Your task to perform on an android device: Open internet settings Image 0: 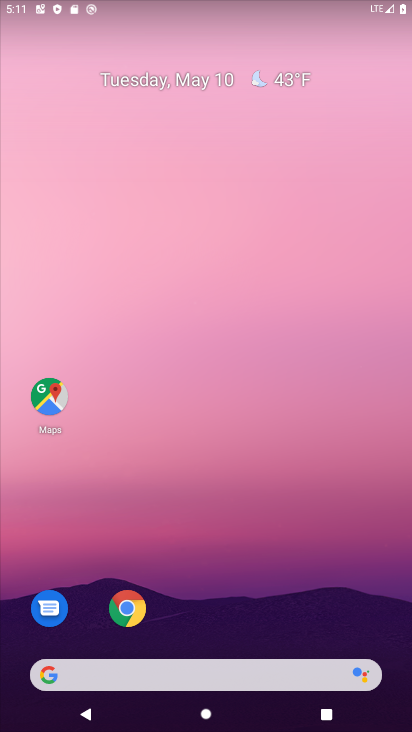
Step 0: drag from (214, 612) to (328, 3)
Your task to perform on an android device: Open internet settings Image 1: 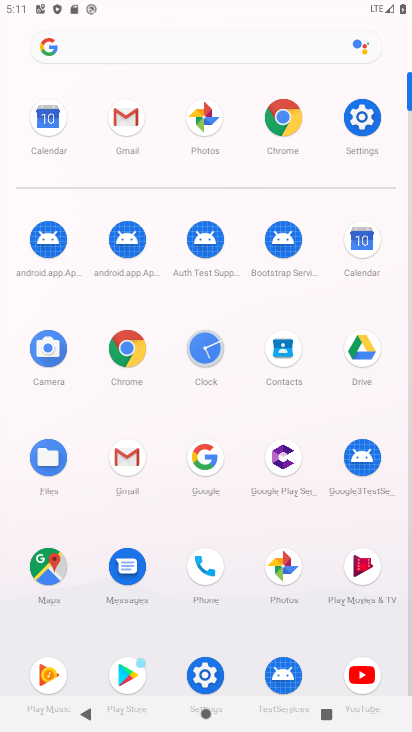
Step 1: click (361, 116)
Your task to perform on an android device: Open internet settings Image 2: 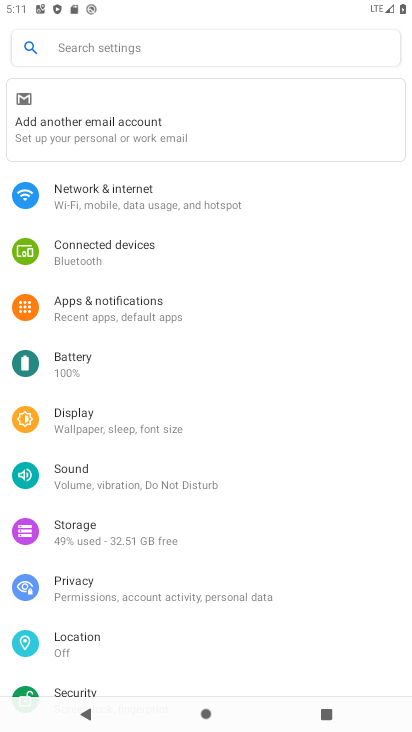
Step 2: click (166, 193)
Your task to perform on an android device: Open internet settings Image 3: 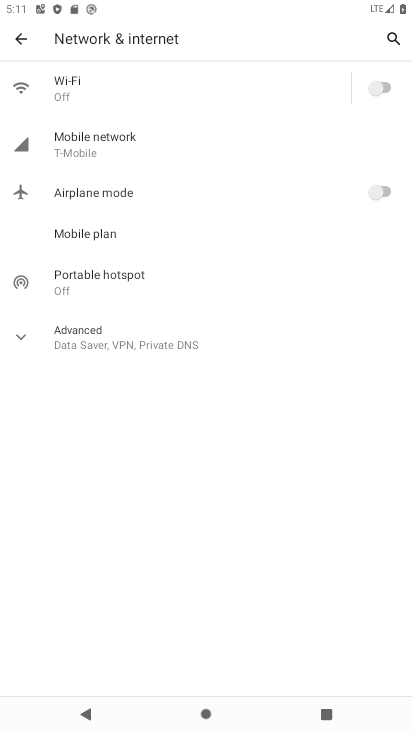
Step 3: task complete